Your task to perform on an android device: View the shopping cart on newegg. Add razer thresher to the cart on newegg, then select checkout. Image 0: 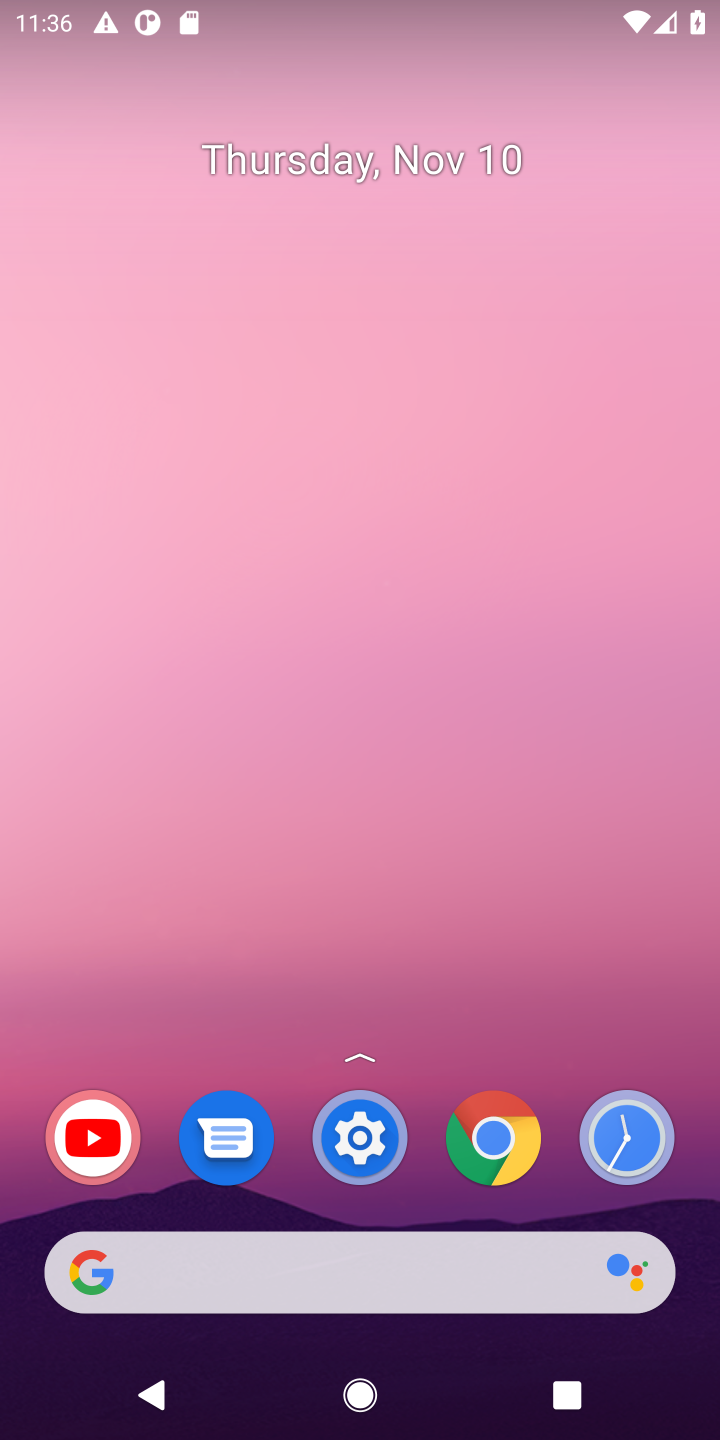
Step 0: click (493, 1132)
Your task to perform on an android device: View the shopping cart on newegg. Add razer thresher to the cart on newegg, then select checkout. Image 1: 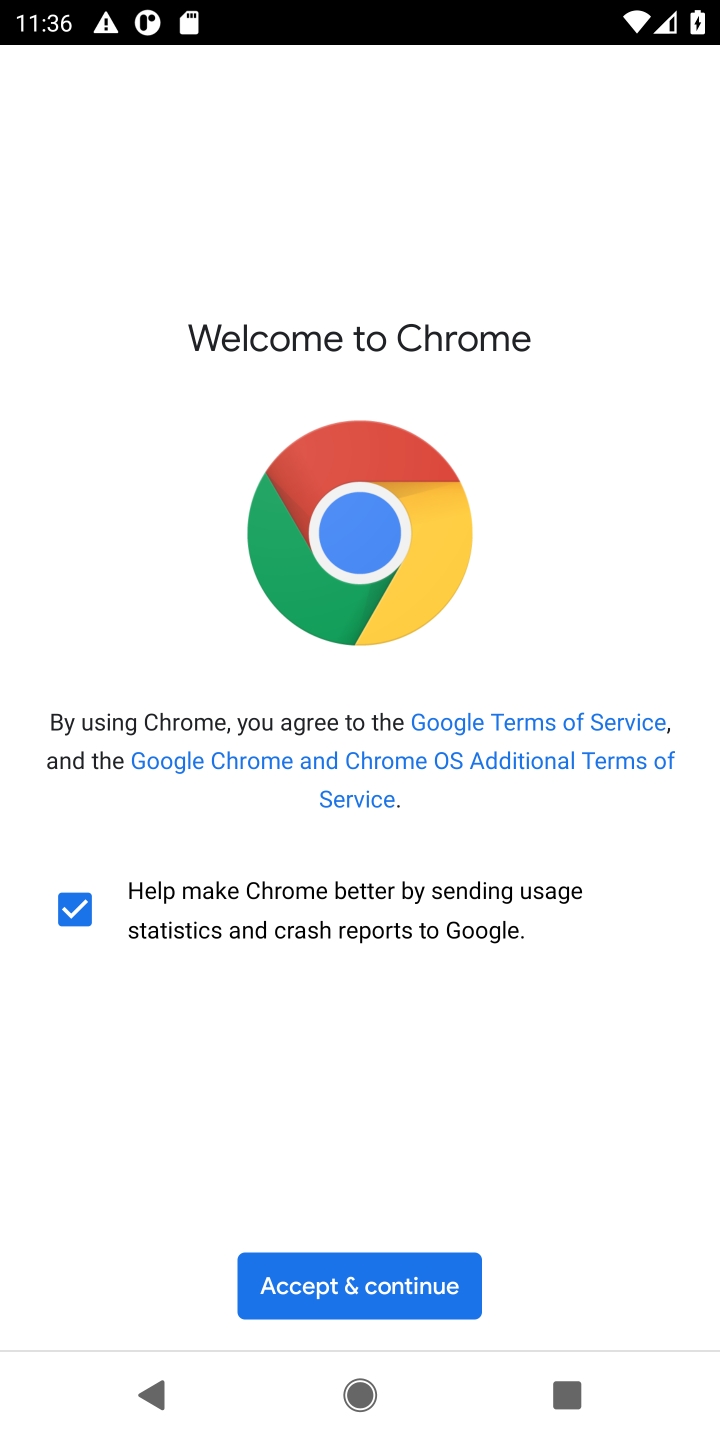
Step 1: click (349, 1263)
Your task to perform on an android device: View the shopping cart on newegg. Add razer thresher to the cart on newegg, then select checkout. Image 2: 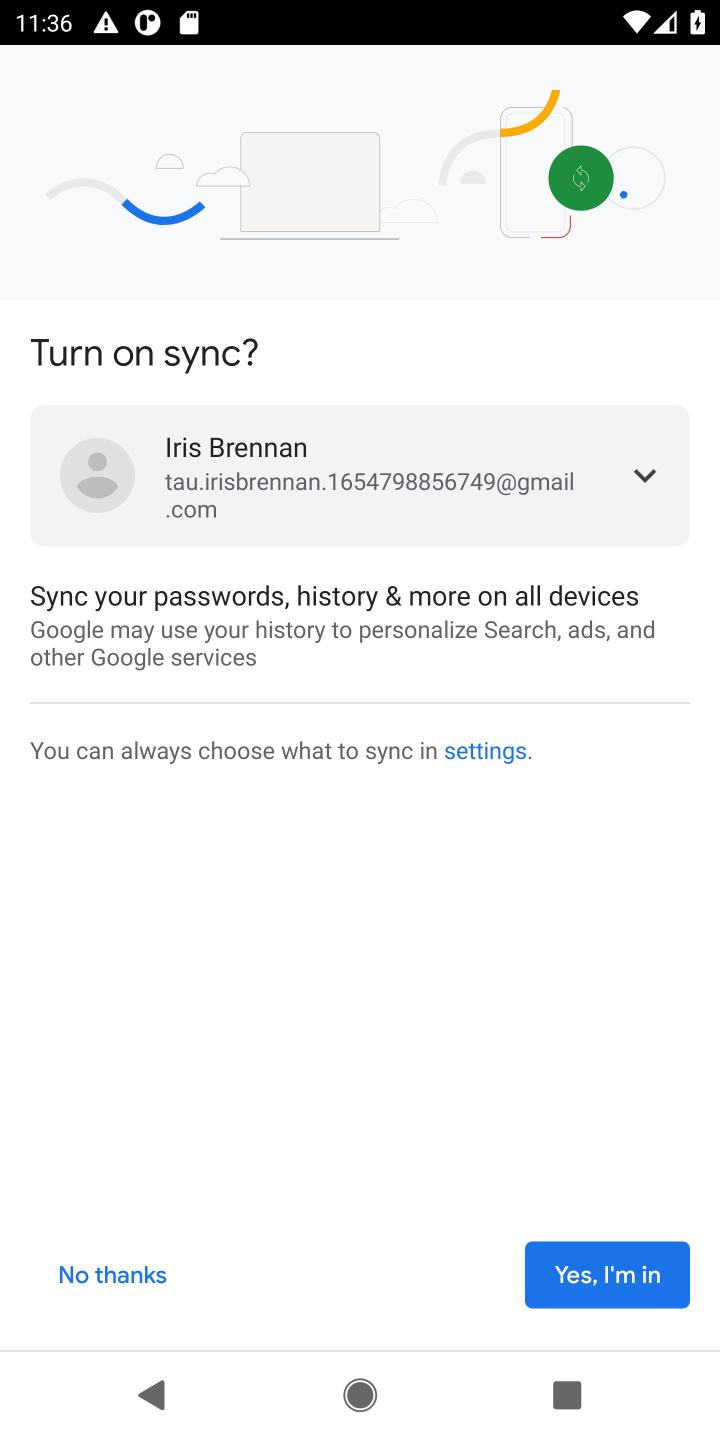
Step 2: click (647, 1280)
Your task to perform on an android device: View the shopping cart on newegg. Add razer thresher to the cart on newegg, then select checkout. Image 3: 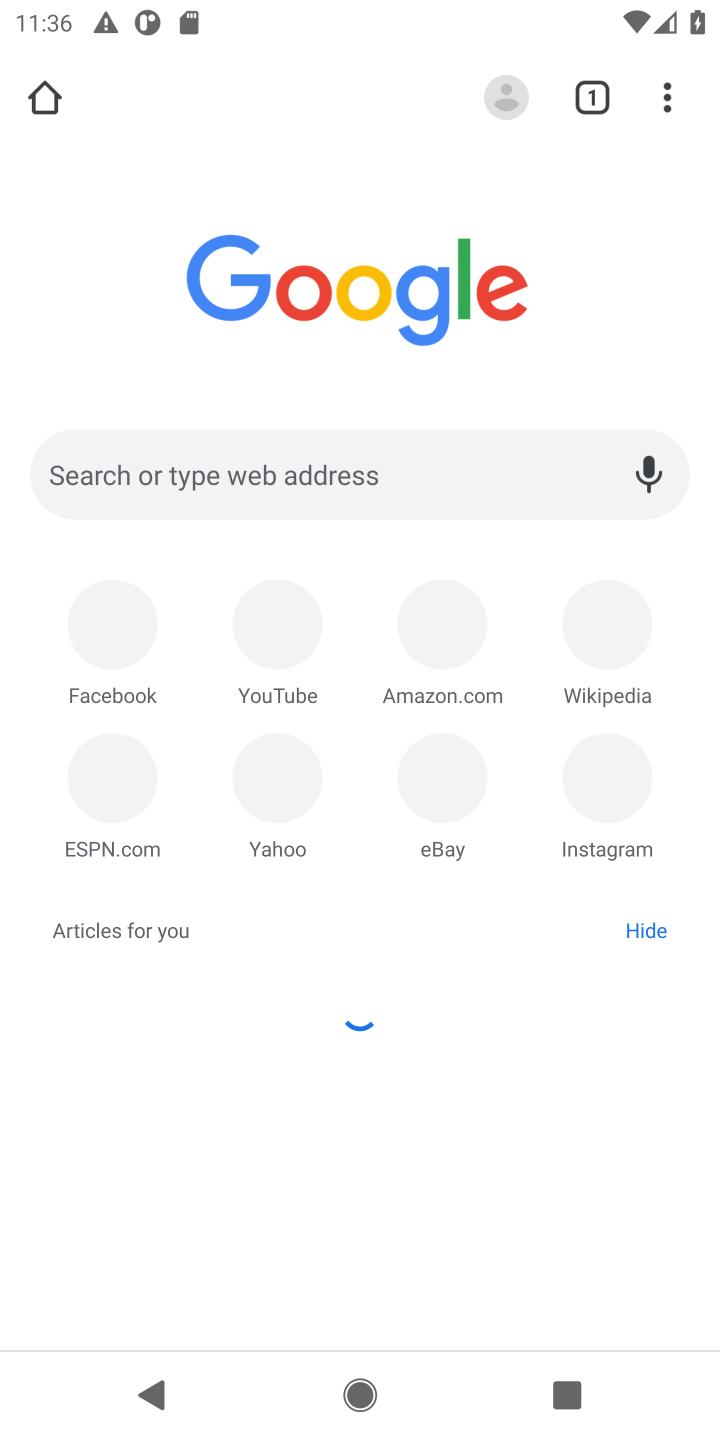
Step 3: click (401, 468)
Your task to perform on an android device: View the shopping cart on newegg. Add razer thresher to the cart on newegg, then select checkout. Image 4: 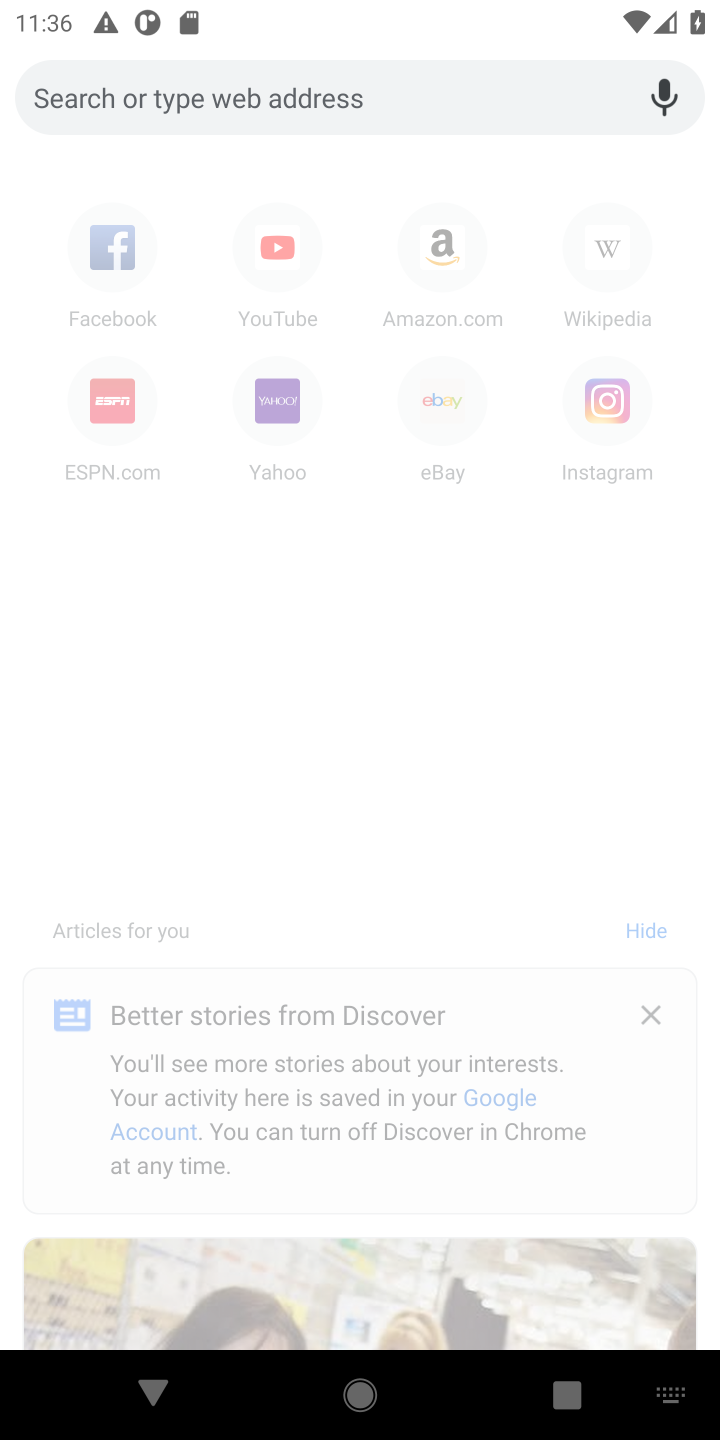
Step 4: type "newegg"
Your task to perform on an android device: View the shopping cart on newegg. Add razer thresher to the cart on newegg, then select checkout. Image 5: 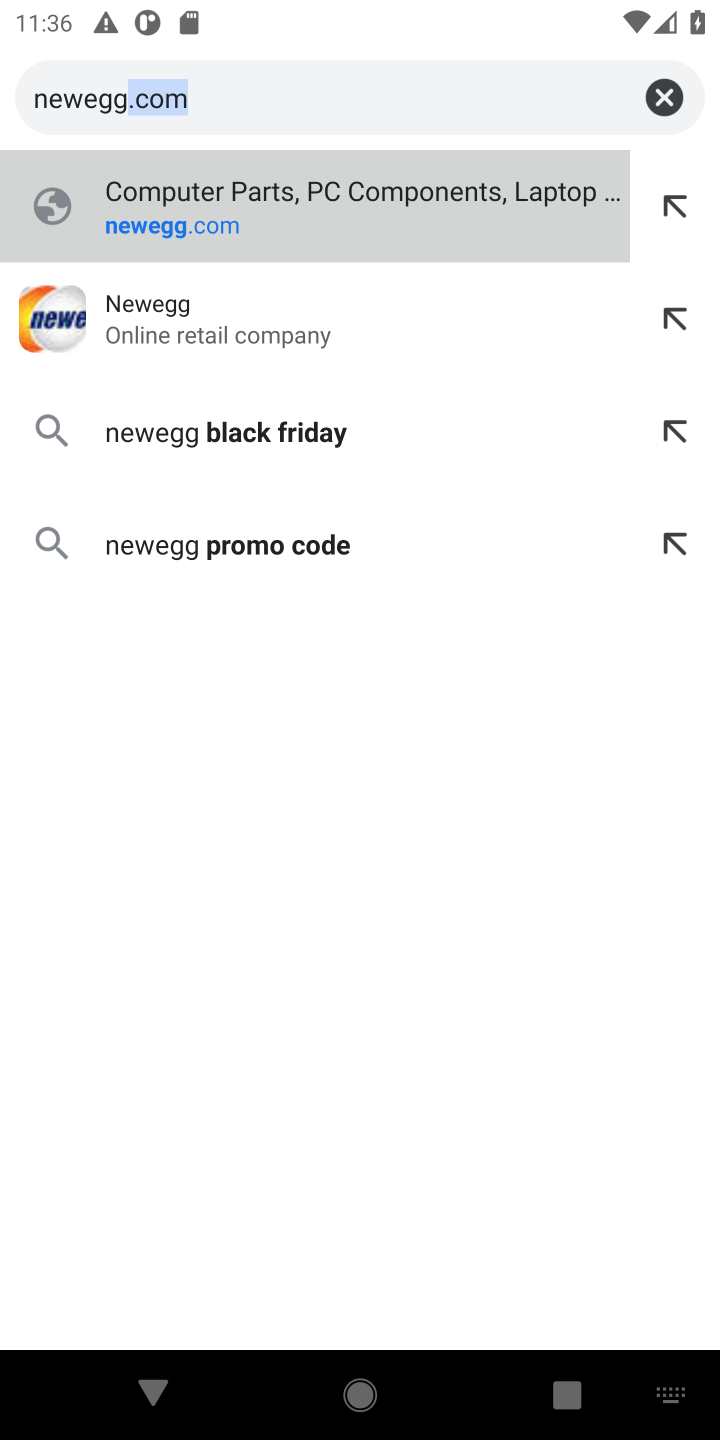
Step 5: click (227, 316)
Your task to perform on an android device: View the shopping cart on newegg. Add razer thresher to the cart on newegg, then select checkout. Image 6: 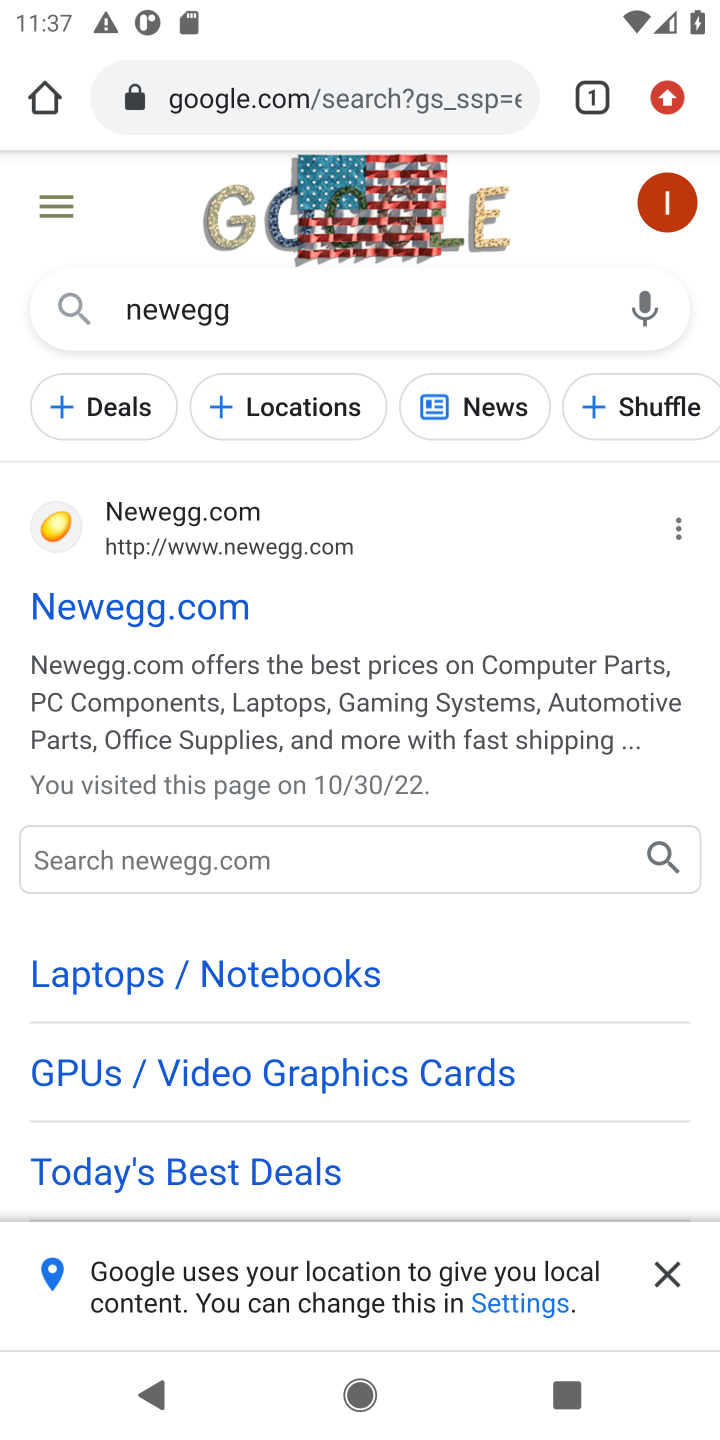
Step 6: click (682, 1280)
Your task to perform on an android device: View the shopping cart on newegg. Add razer thresher to the cart on newegg, then select checkout. Image 7: 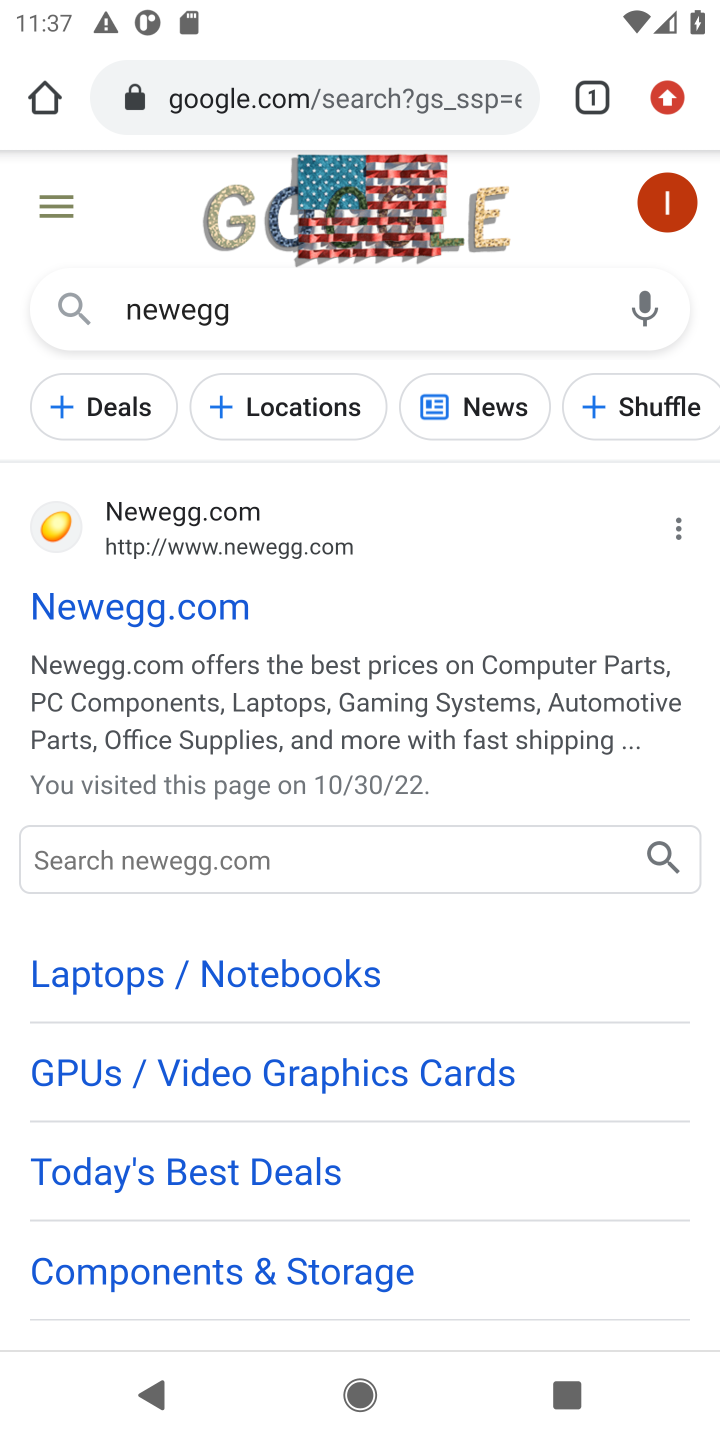
Step 7: click (239, 860)
Your task to perform on an android device: View the shopping cart on newegg. Add razer thresher to the cart on newegg, then select checkout. Image 8: 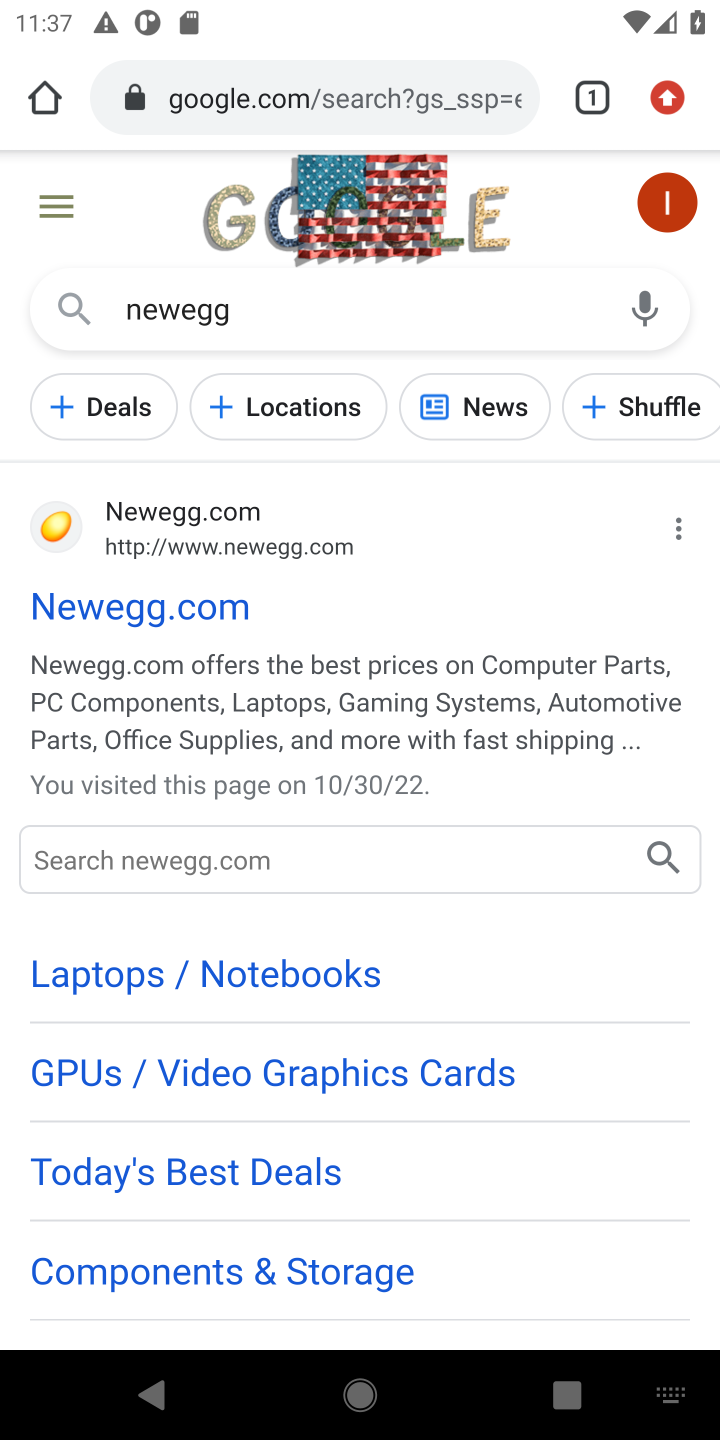
Step 8: type "razer thresher"
Your task to perform on an android device: View the shopping cart on newegg. Add razer thresher to the cart on newegg, then select checkout. Image 9: 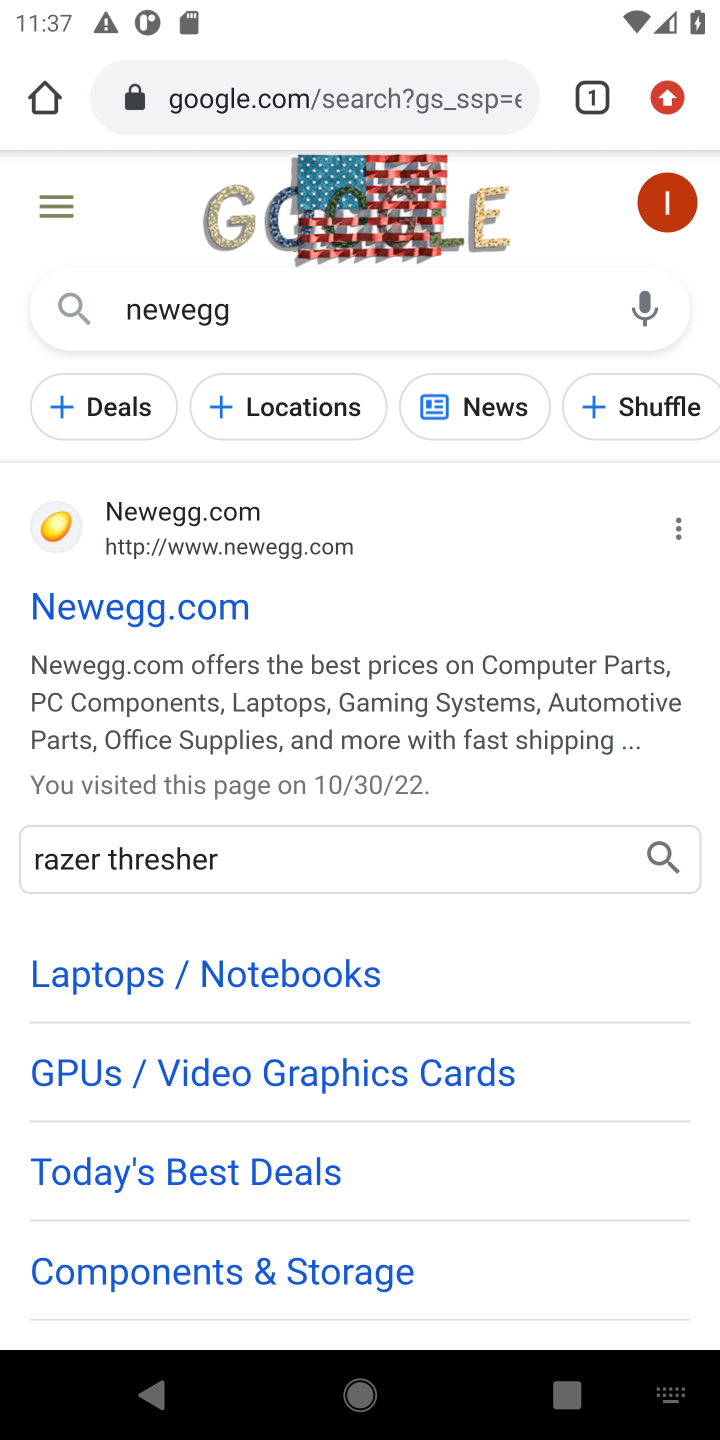
Step 9: click (651, 850)
Your task to perform on an android device: View the shopping cart on newegg. Add razer thresher to the cart on newegg, then select checkout. Image 10: 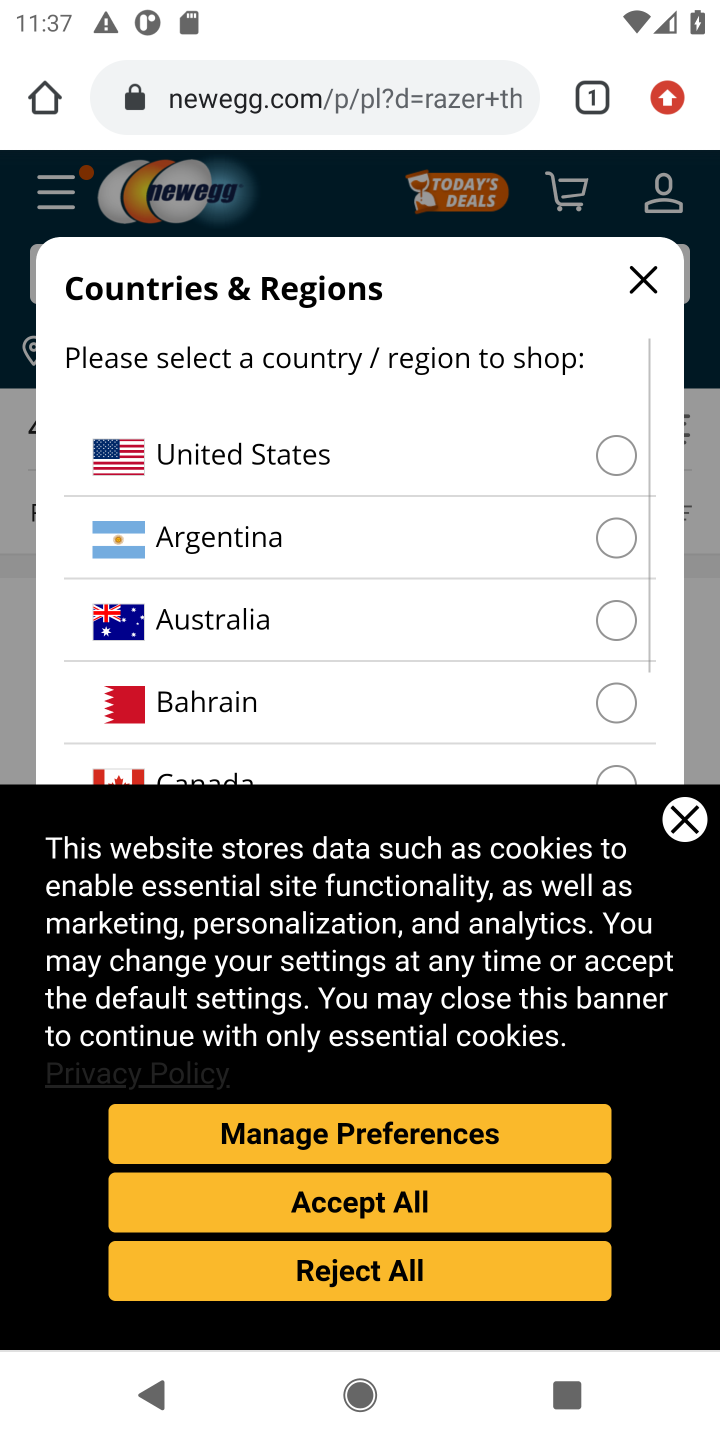
Step 10: click (398, 1279)
Your task to perform on an android device: View the shopping cart on newegg. Add razer thresher to the cart on newegg, then select checkout. Image 11: 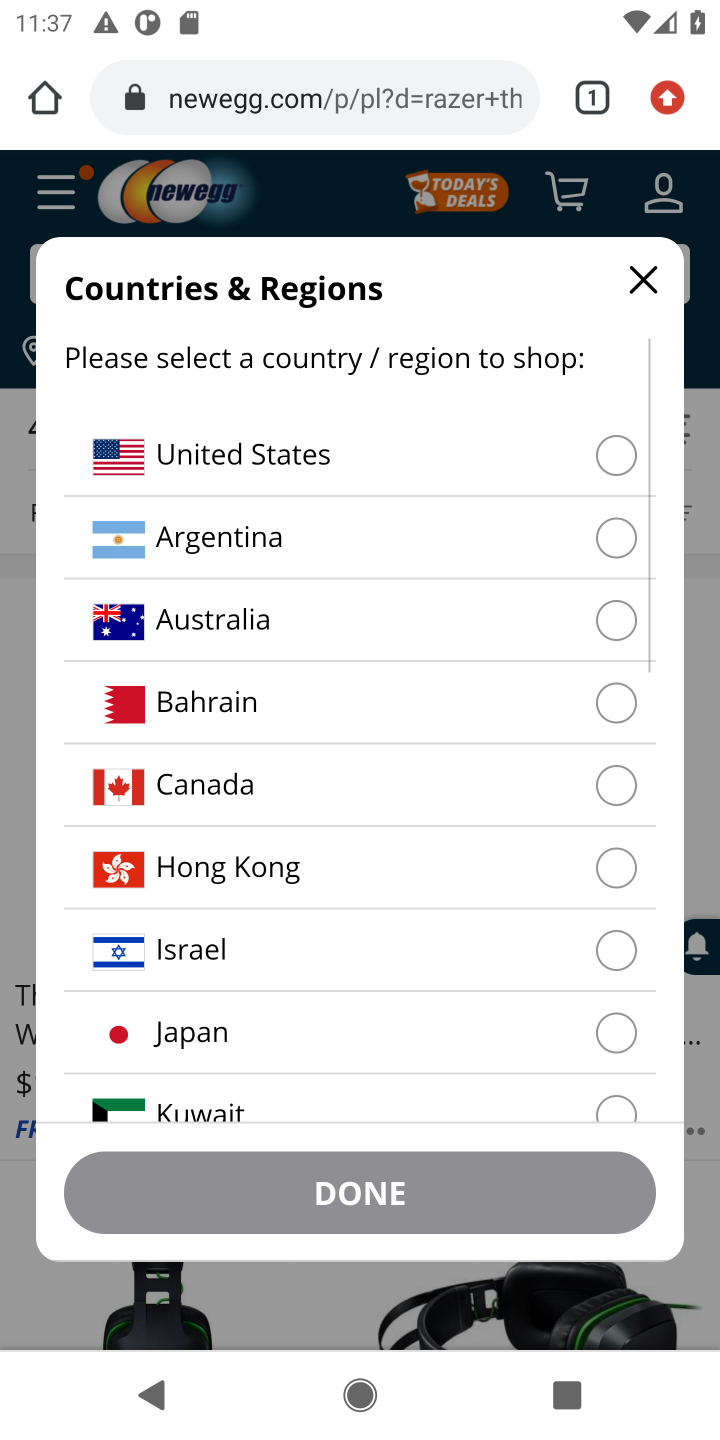
Step 11: click (614, 461)
Your task to perform on an android device: View the shopping cart on newegg. Add razer thresher to the cart on newegg, then select checkout. Image 12: 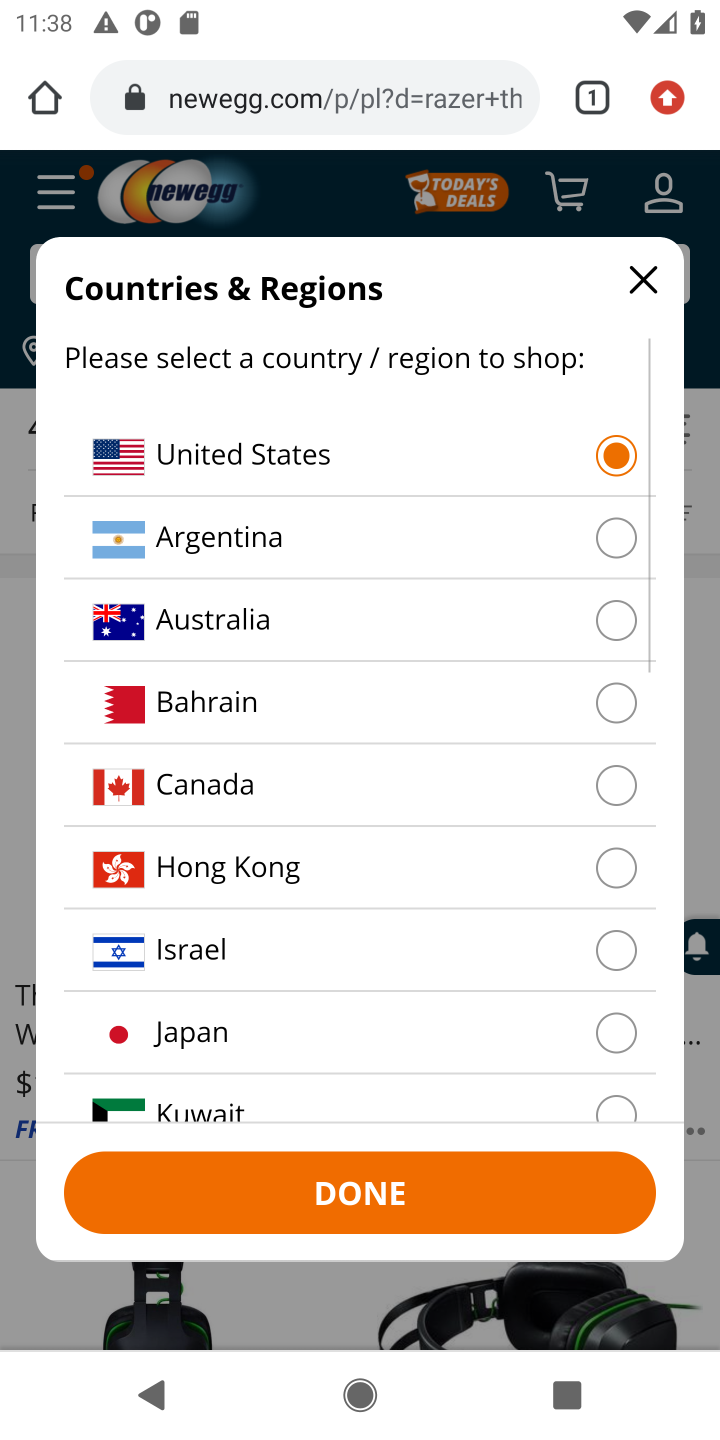
Step 12: click (341, 1180)
Your task to perform on an android device: View the shopping cart on newegg. Add razer thresher to the cart on newegg, then select checkout. Image 13: 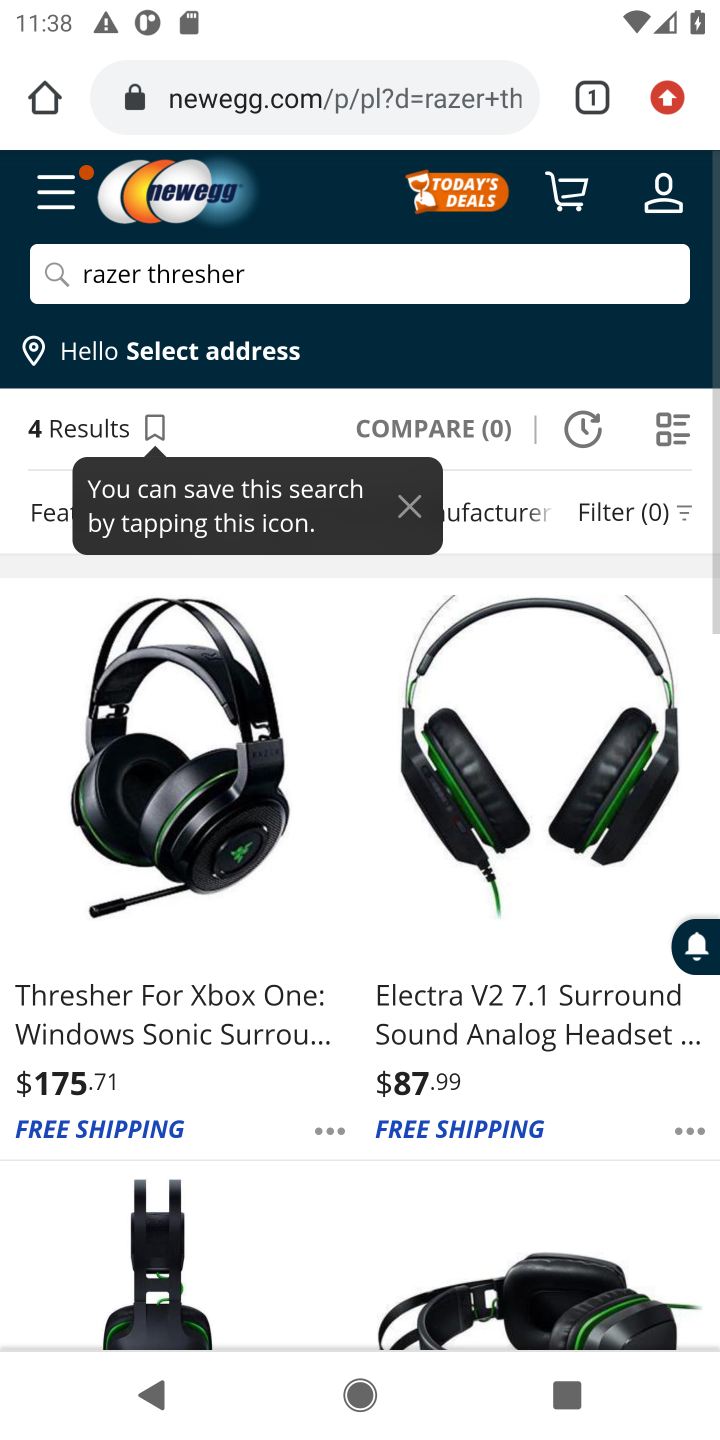
Step 13: click (273, 1020)
Your task to perform on an android device: View the shopping cart on newegg. Add razer thresher to the cart on newegg, then select checkout. Image 14: 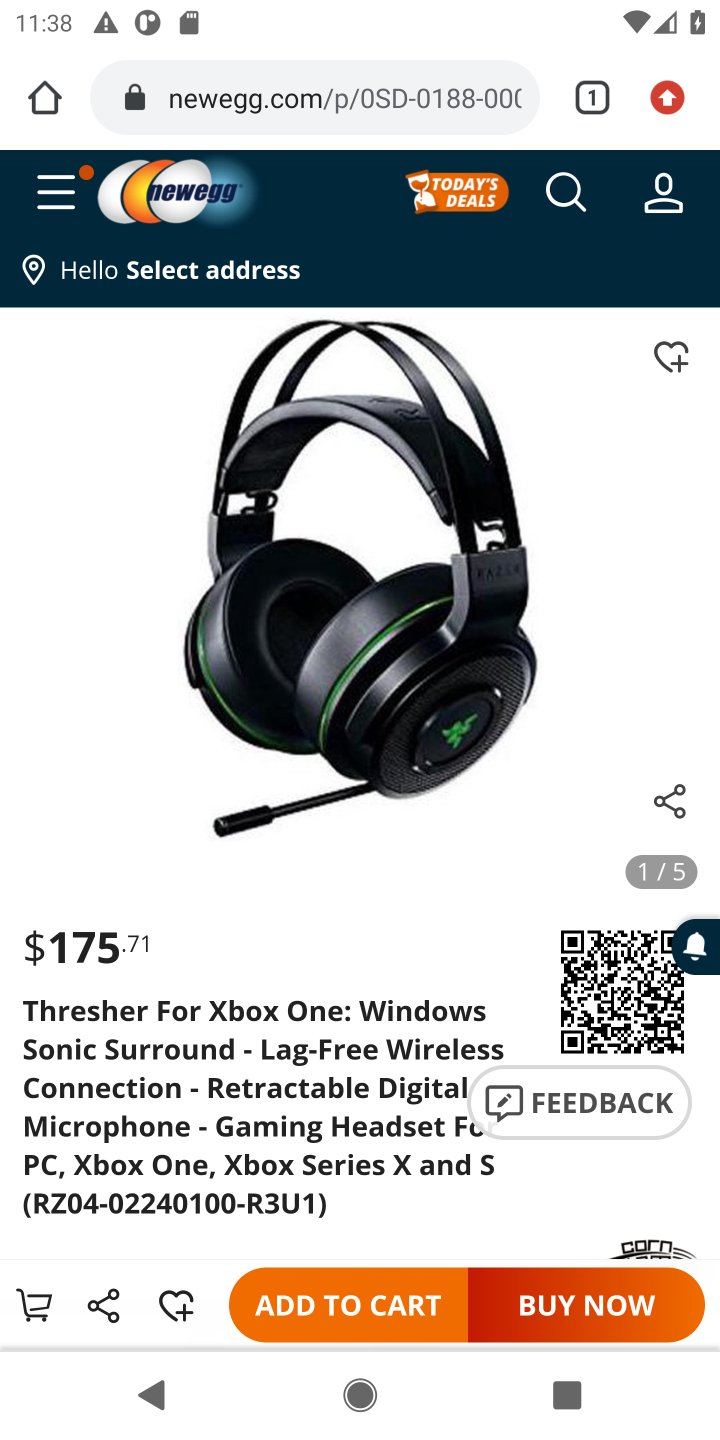
Step 14: click (283, 1299)
Your task to perform on an android device: View the shopping cart on newegg. Add razer thresher to the cart on newegg, then select checkout. Image 15: 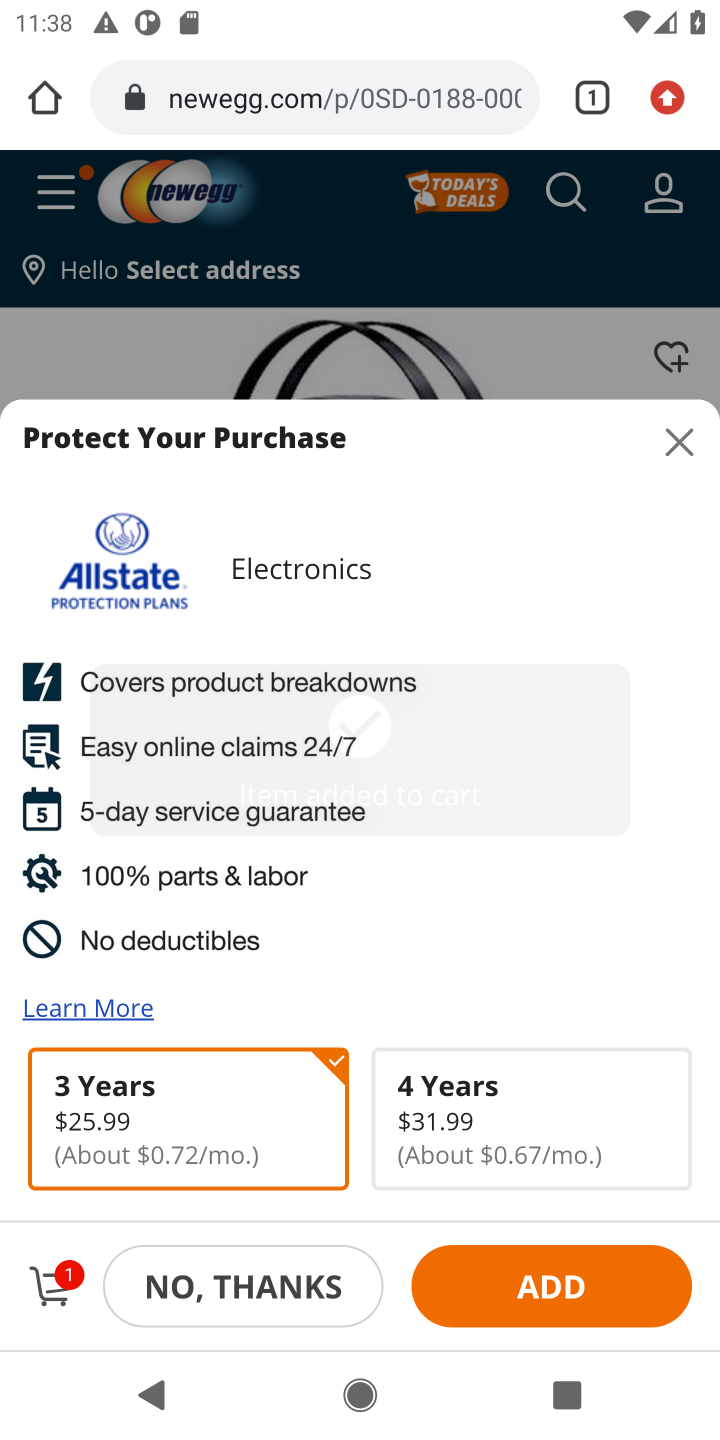
Step 15: click (52, 1295)
Your task to perform on an android device: View the shopping cart on newegg. Add razer thresher to the cart on newegg, then select checkout. Image 16: 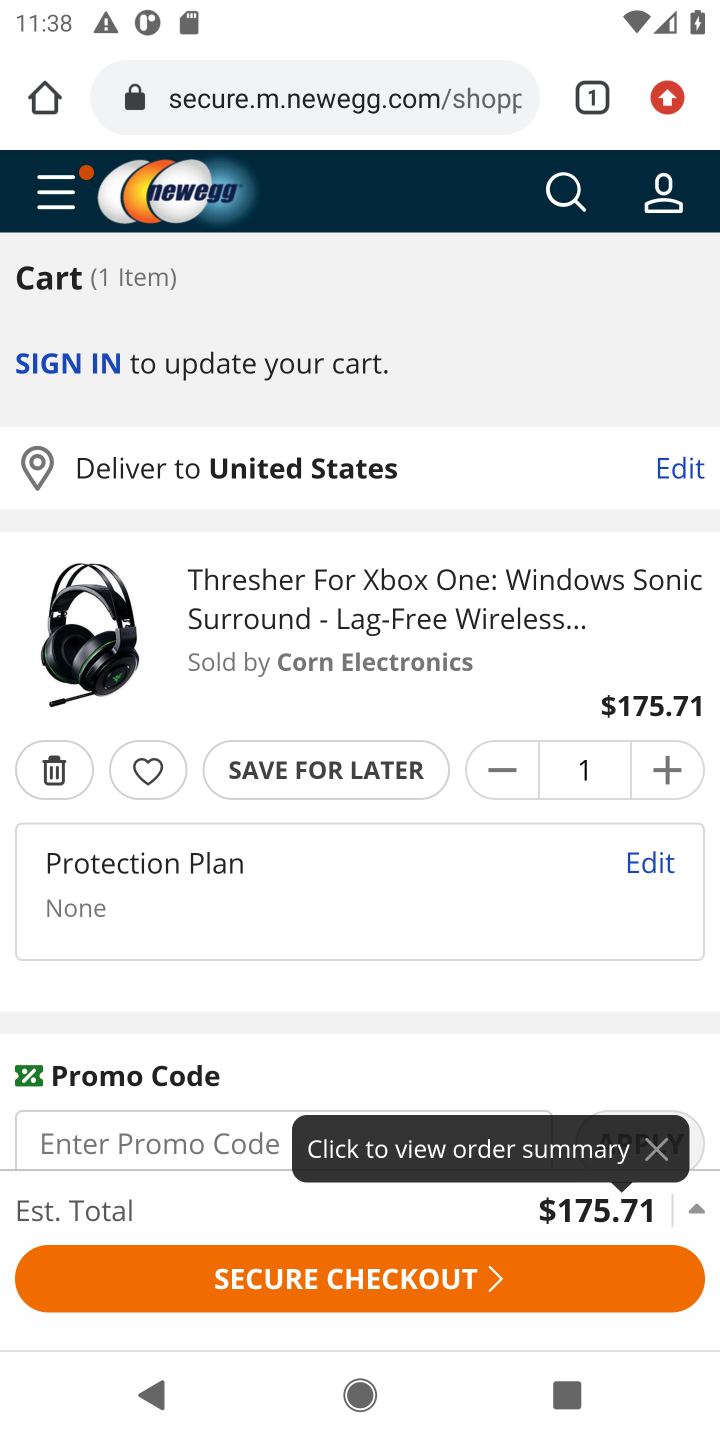
Step 16: click (269, 1263)
Your task to perform on an android device: View the shopping cart on newegg. Add razer thresher to the cart on newegg, then select checkout. Image 17: 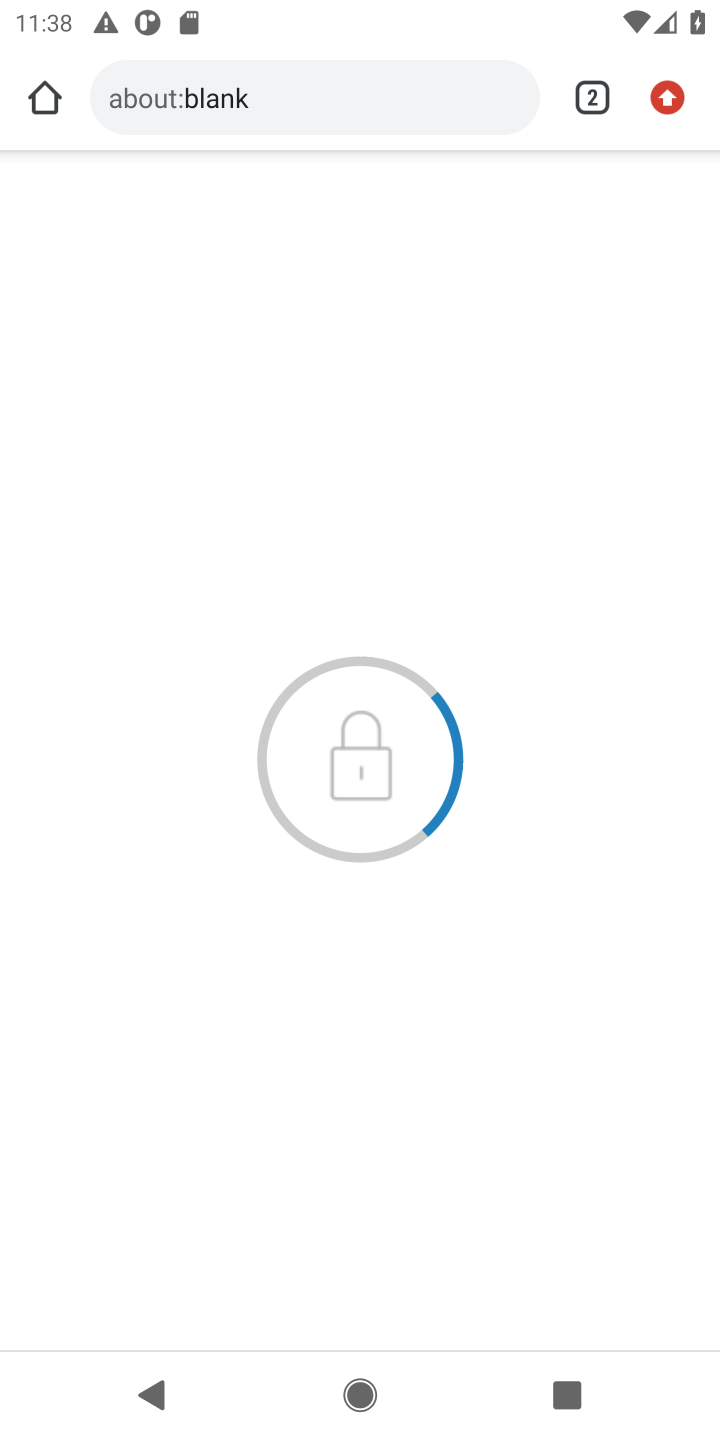
Step 17: task complete